Your task to perform on an android device: toggle javascript in the chrome app Image 0: 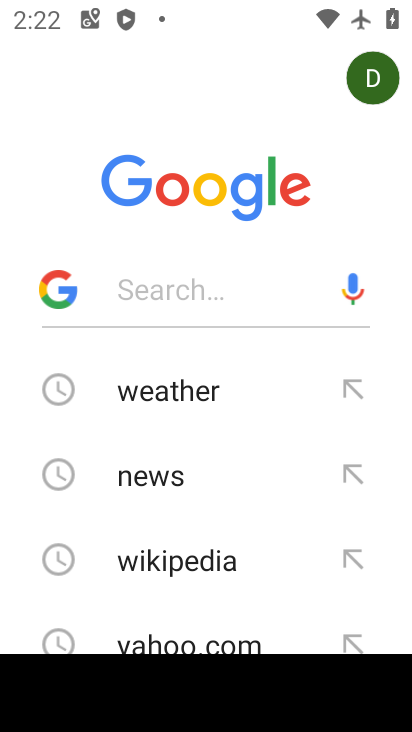
Step 0: press home button
Your task to perform on an android device: toggle javascript in the chrome app Image 1: 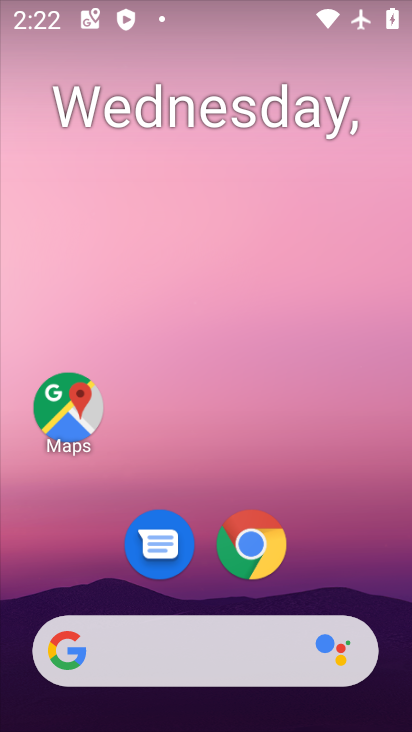
Step 1: click (266, 535)
Your task to perform on an android device: toggle javascript in the chrome app Image 2: 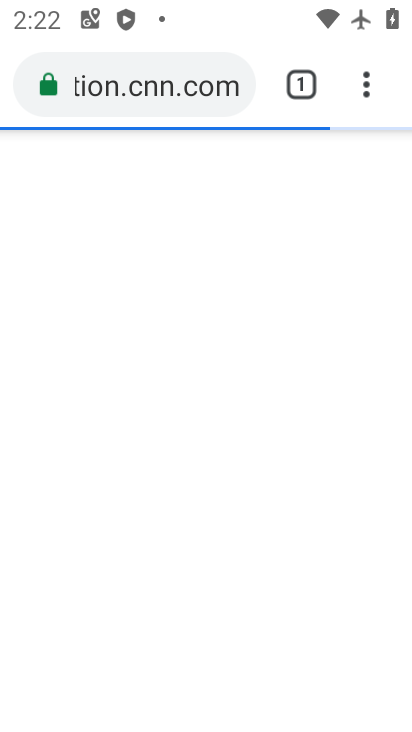
Step 2: click (366, 82)
Your task to perform on an android device: toggle javascript in the chrome app Image 3: 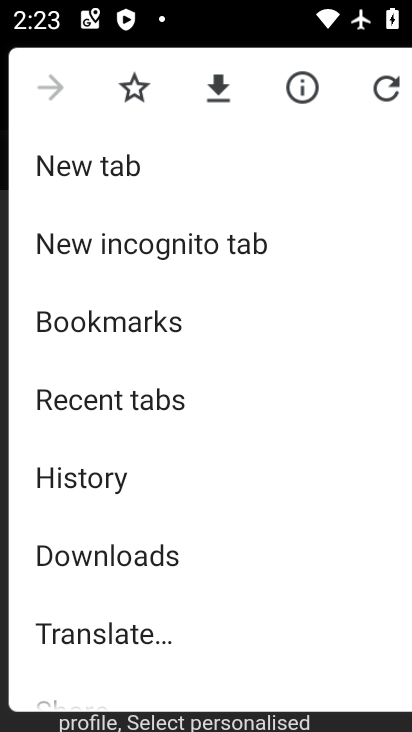
Step 3: drag from (119, 545) to (218, 246)
Your task to perform on an android device: toggle javascript in the chrome app Image 4: 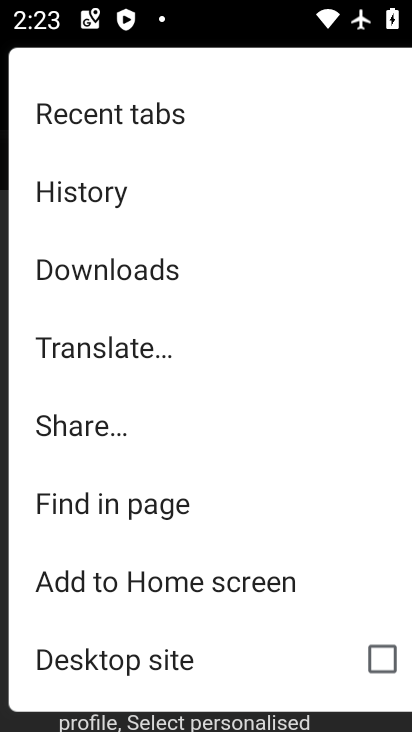
Step 4: drag from (117, 649) to (217, 280)
Your task to perform on an android device: toggle javascript in the chrome app Image 5: 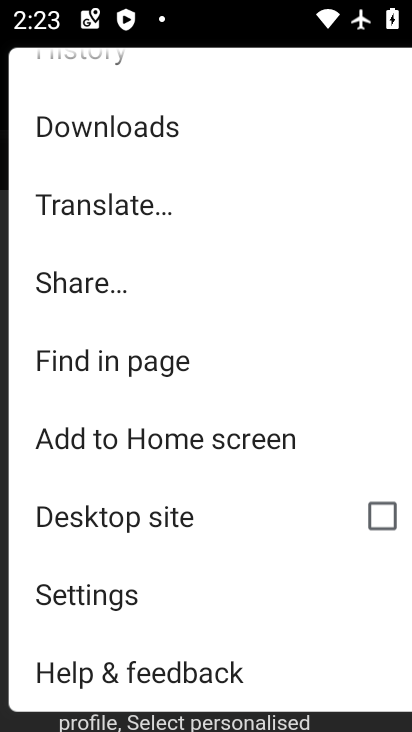
Step 5: click (120, 603)
Your task to perform on an android device: toggle javascript in the chrome app Image 6: 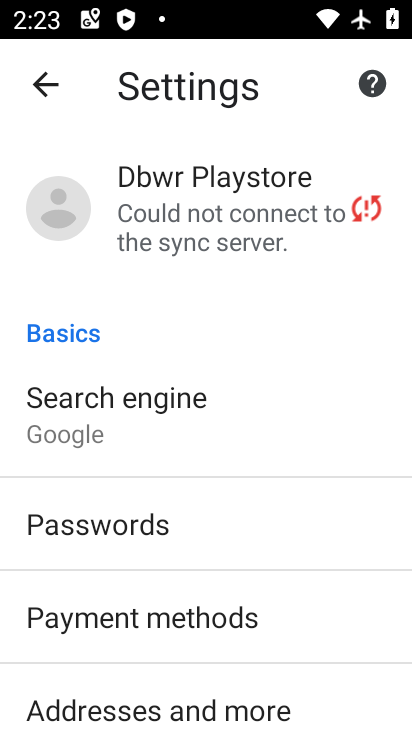
Step 6: click (120, 603)
Your task to perform on an android device: toggle javascript in the chrome app Image 7: 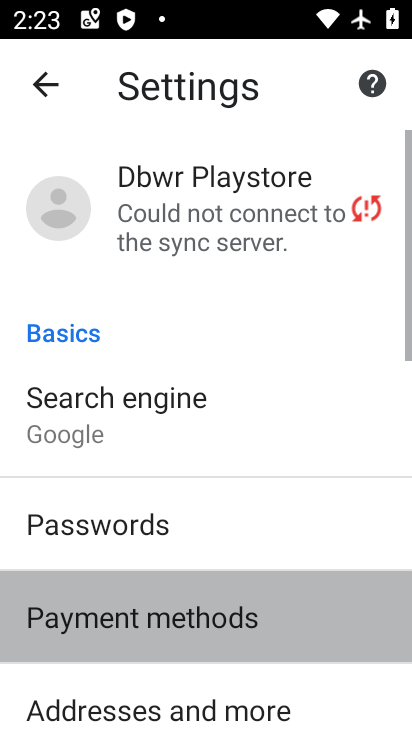
Step 7: drag from (120, 603) to (186, 199)
Your task to perform on an android device: toggle javascript in the chrome app Image 8: 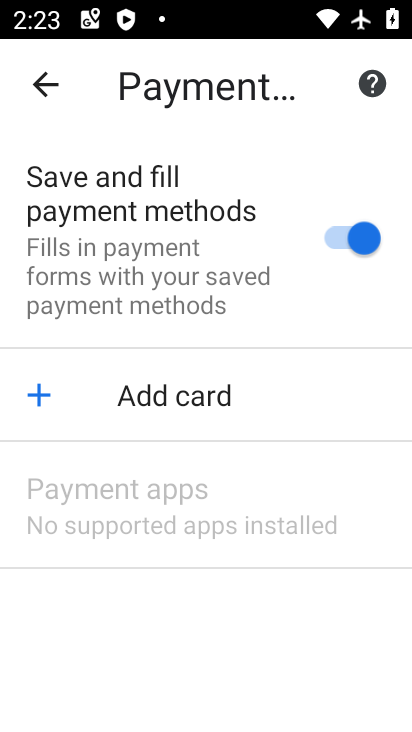
Step 8: click (54, 101)
Your task to perform on an android device: toggle javascript in the chrome app Image 9: 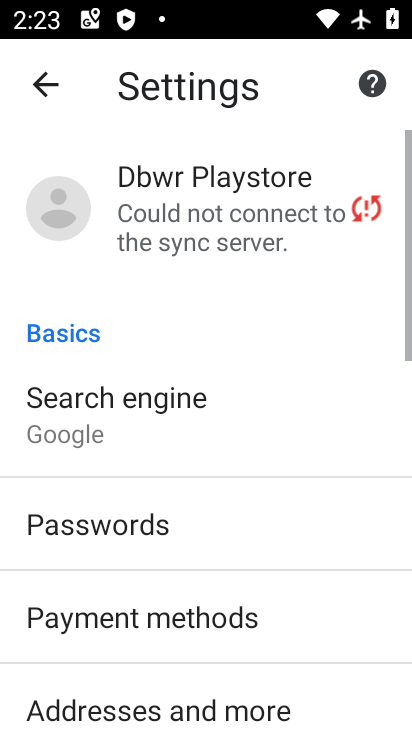
Step 9: drag from (149, 594) to (222, 331)
Your task to perform on an android device: toggle javascript in the chrome app Image 10: 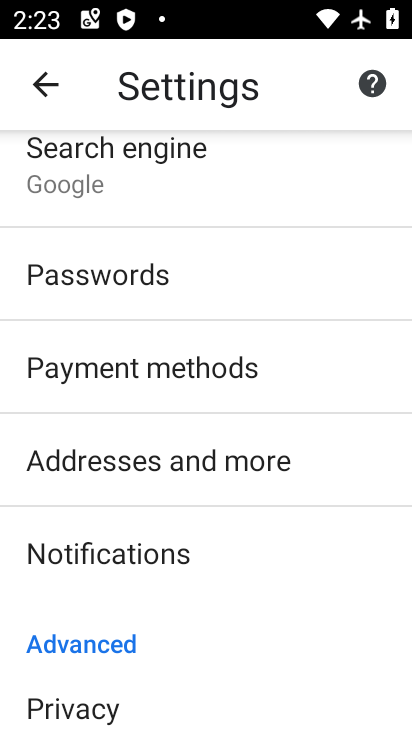
Step 10: drag from (232, 658) to (276, 409)
Your task to perform on an android device: toggle javascript in the chrome app Image 11: 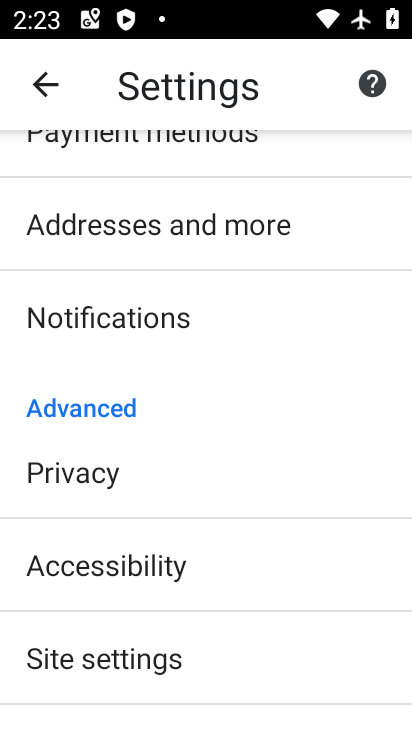
Step 11: drag from (225, 661) to (281, 452)
Your task to perform on an android device: toggle javascript in the chrome app Image 12: 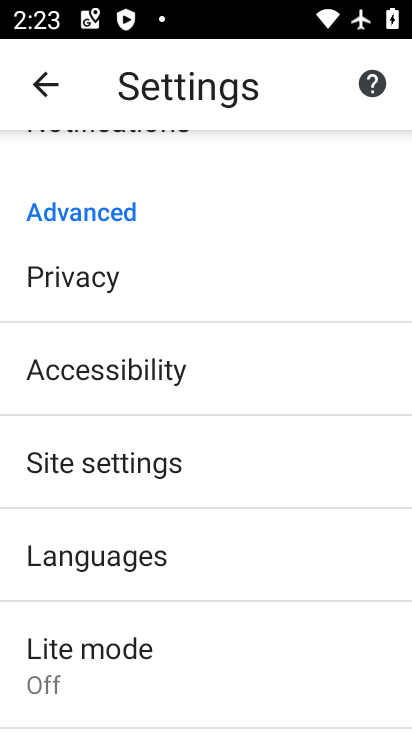
Step 12: click (262, 467)
Your task to perform on an android device: toggle javascript in the chrome app Image 13: 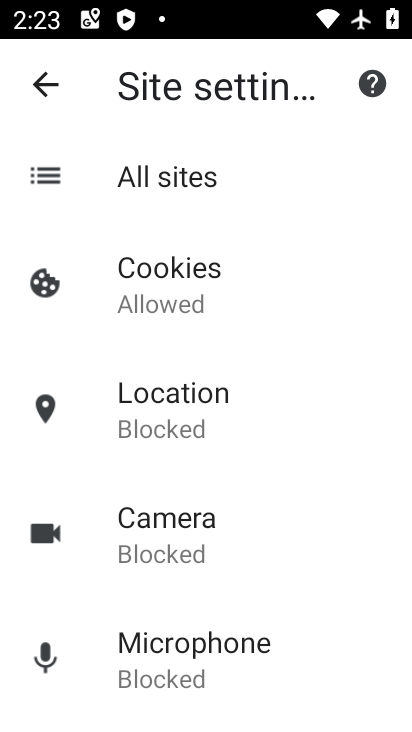
Step 13: drag from (265, 528) to (254, 272)
Your task to perform on an android device: toggle javascript in the chrome app Image 14: 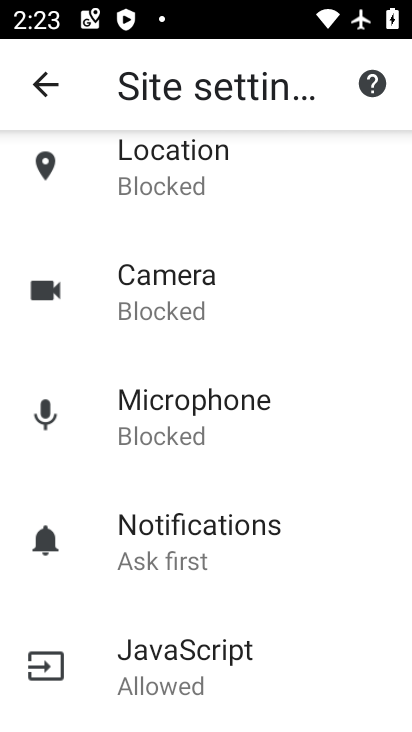
Step 14: click (273, 639)
Your task to perform on an android device: toggle javascript in the chrome app Image 15: 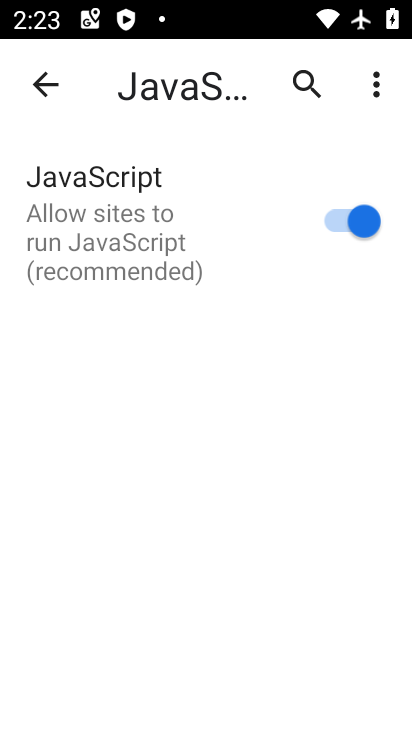
Step 15: click (354, 205)
Your task to perform on an android device: toggle javascript in the chrome app Image 16: 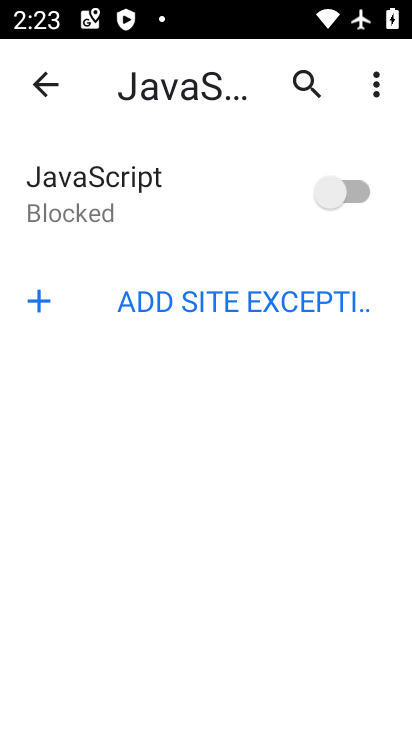
Step 16: task complete